Your task to perform on an android device: turn off notifications in google photos Image 0: 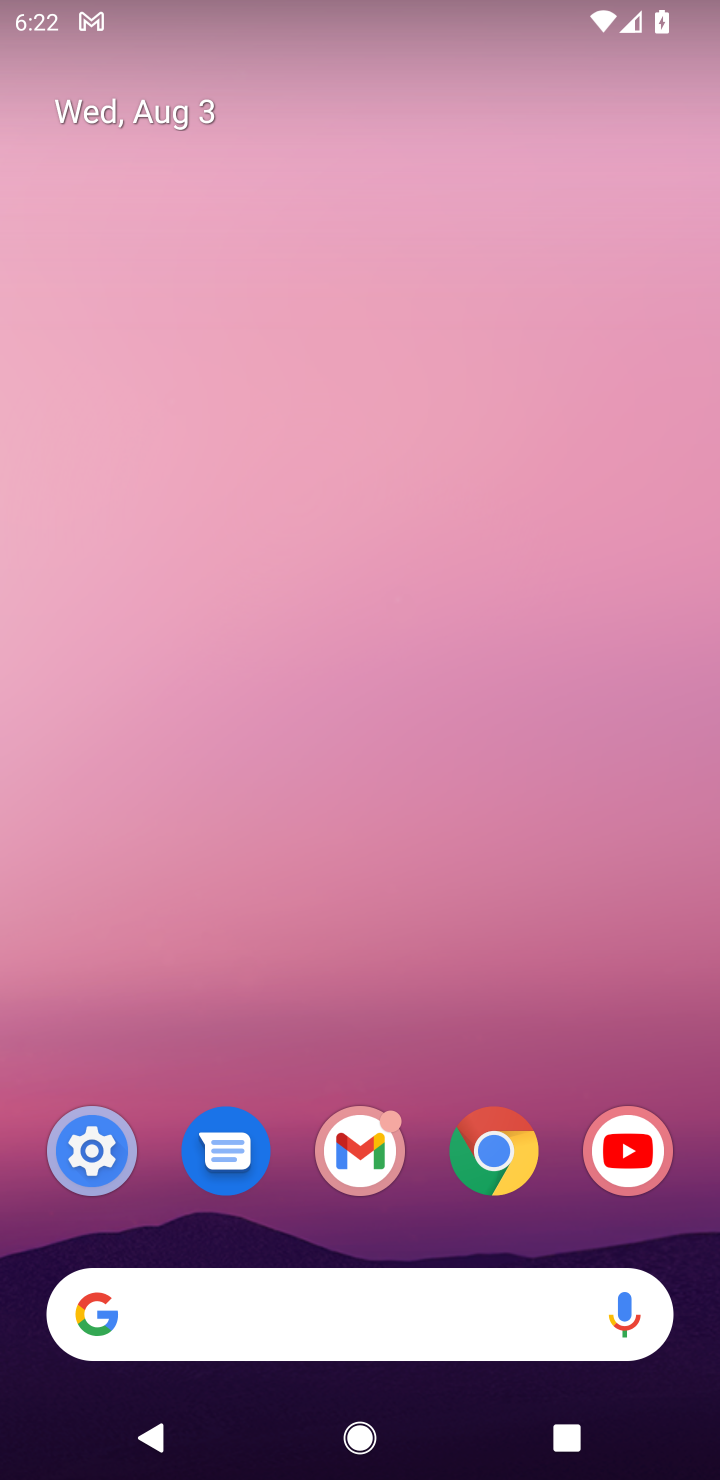
Step 0: drag from (491, 1059) to (457, 472)
Your task to perform on an android device: turn off notifications in google photos Image 1: 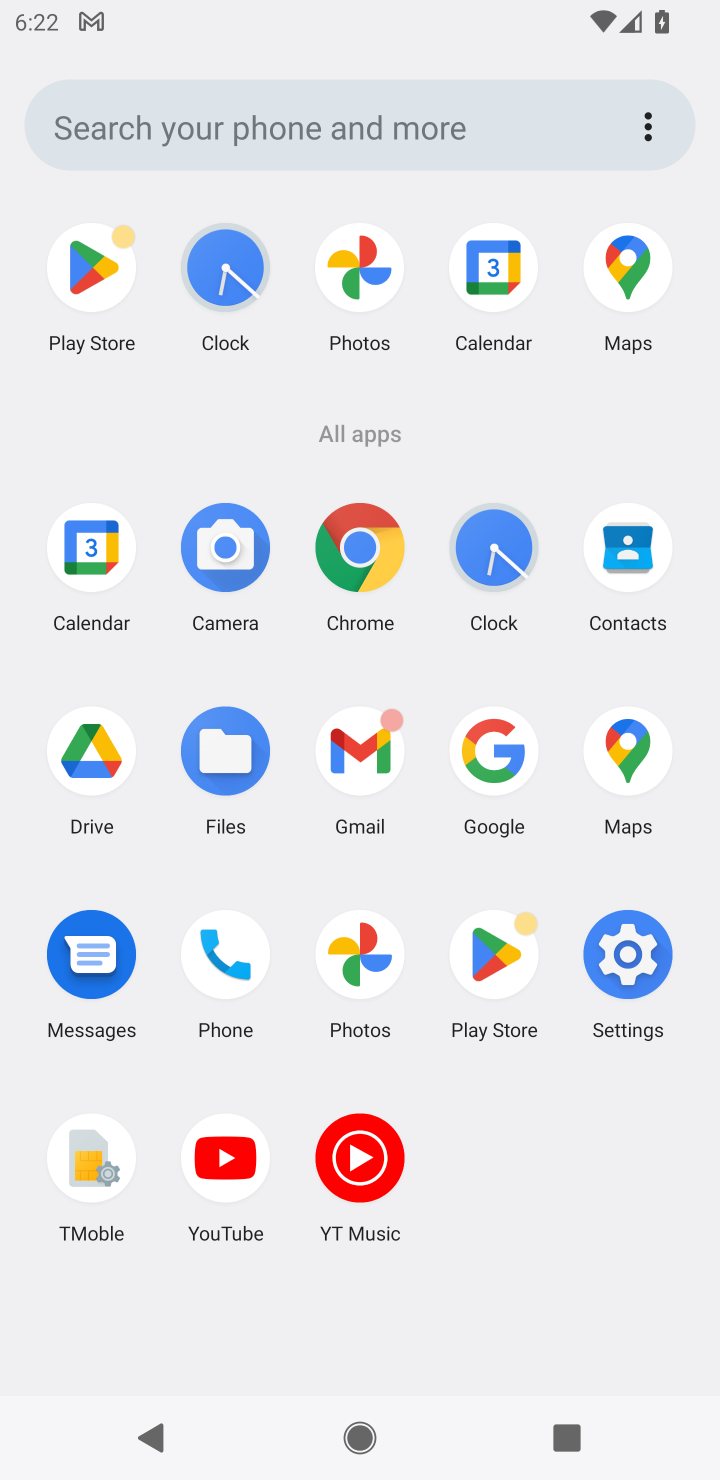
Step 1: click (342, 926)
Your task to perform on an android device: turn off notifications in google photos Image 2: 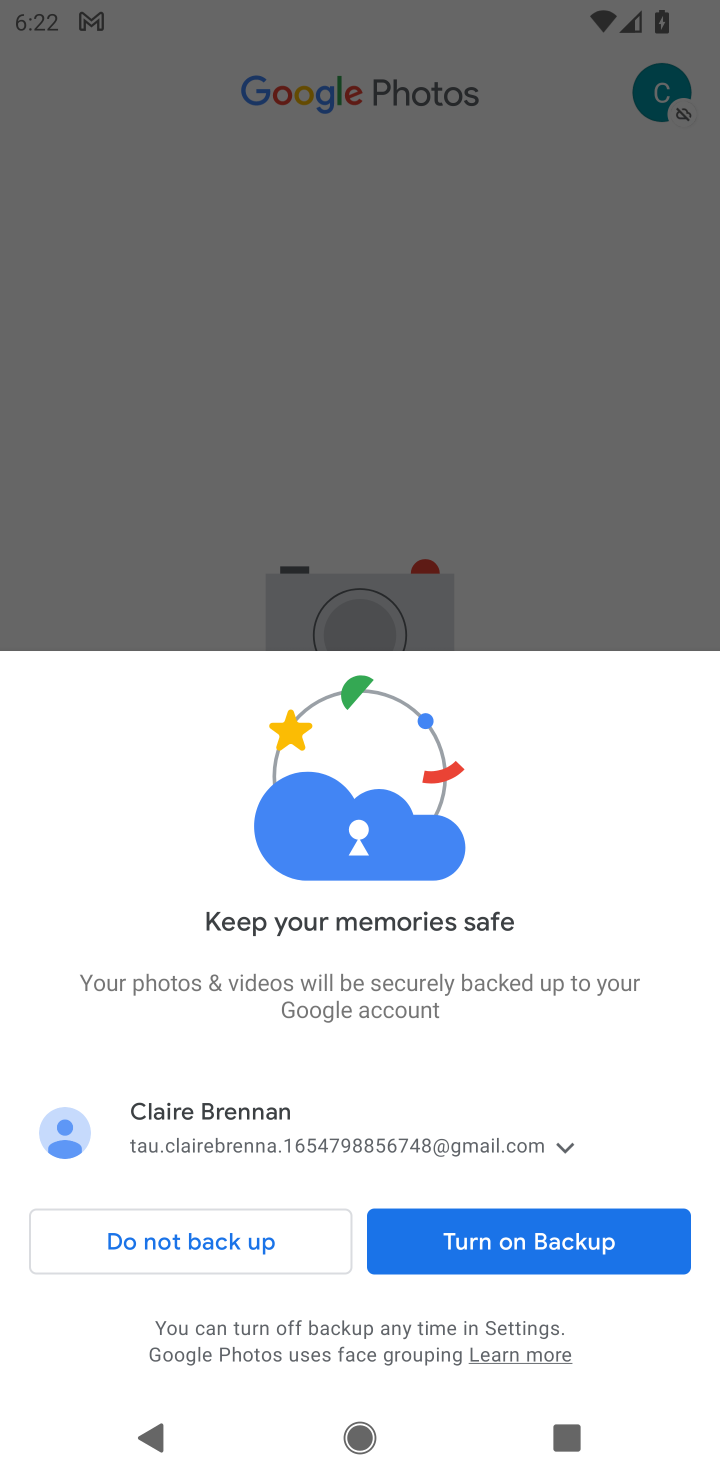
Step 2: click (450, 1238)
Your task to perform on an android device: turn off notifications in google photos Image 3: 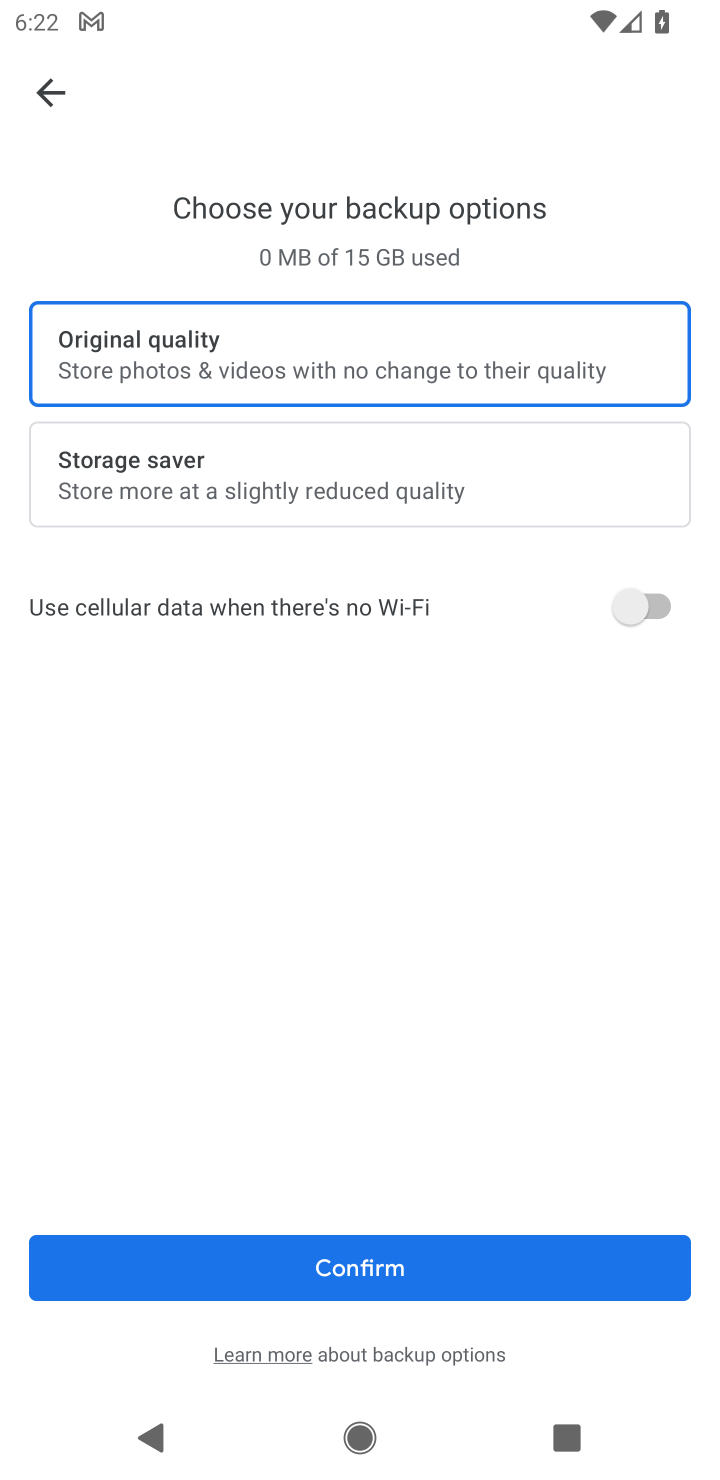
Step 3: click (427, 1261)
Your task to perform on an android device: turn off notifications in google photos Image 4: 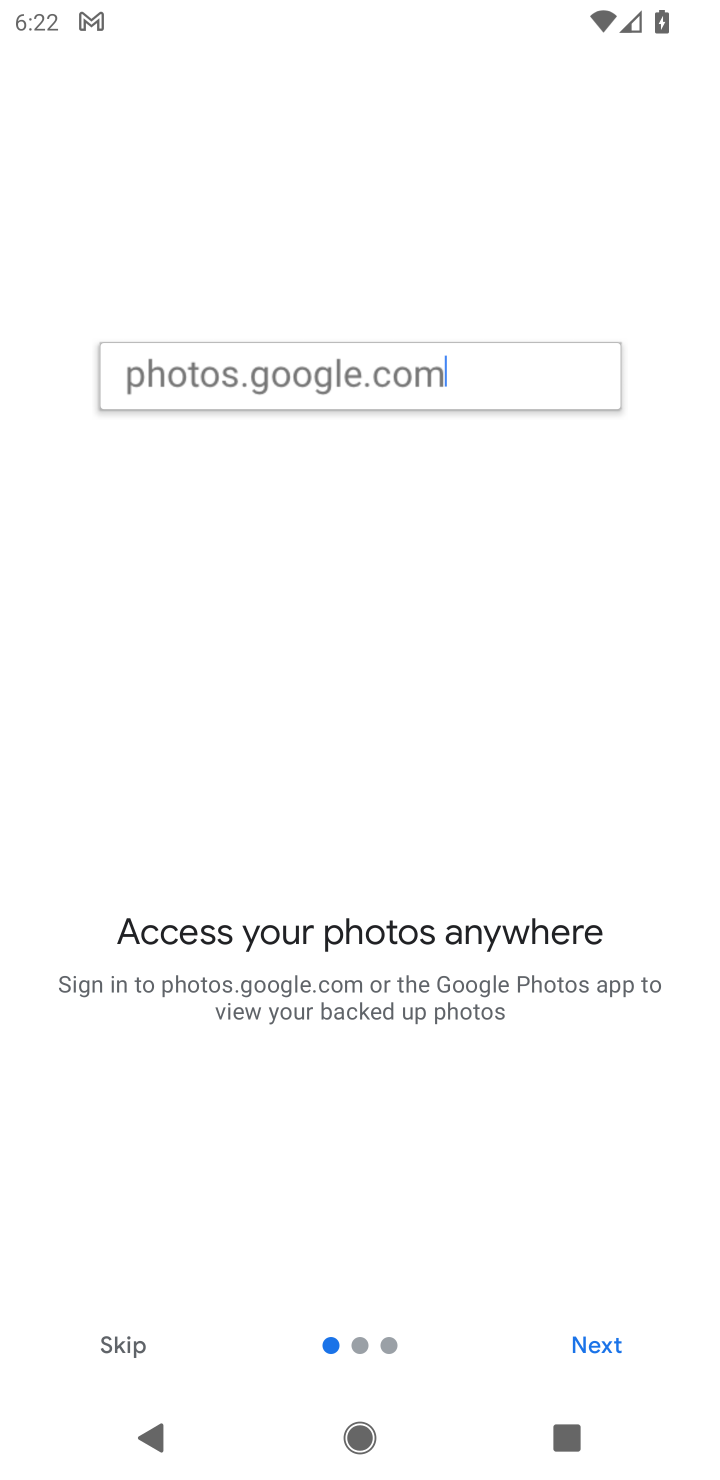
Step 4: press home button
Your task to perform on an android device: turn off notifications in google photos Image 5: 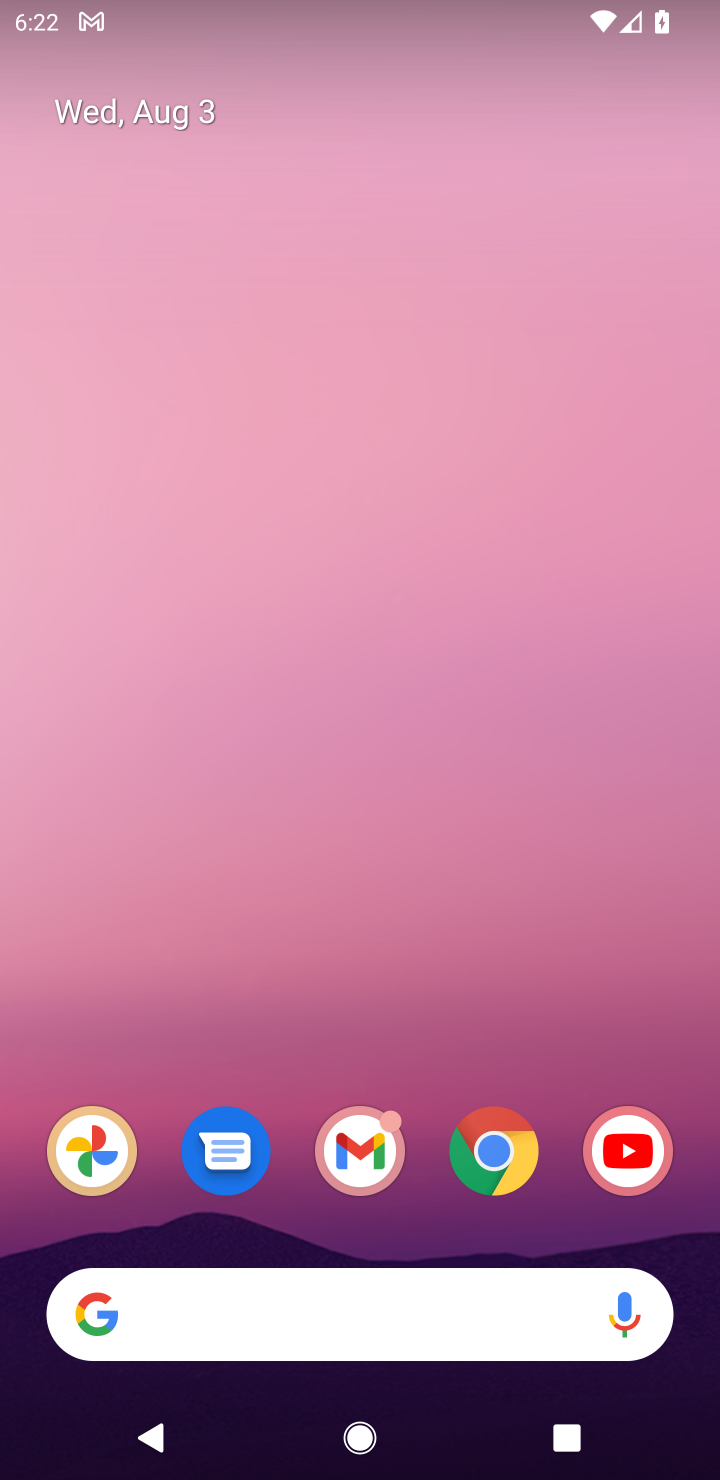
Step 5: click (120, 1162)
Your task to perform on an android device: turn off notifications in google photos Image 6: 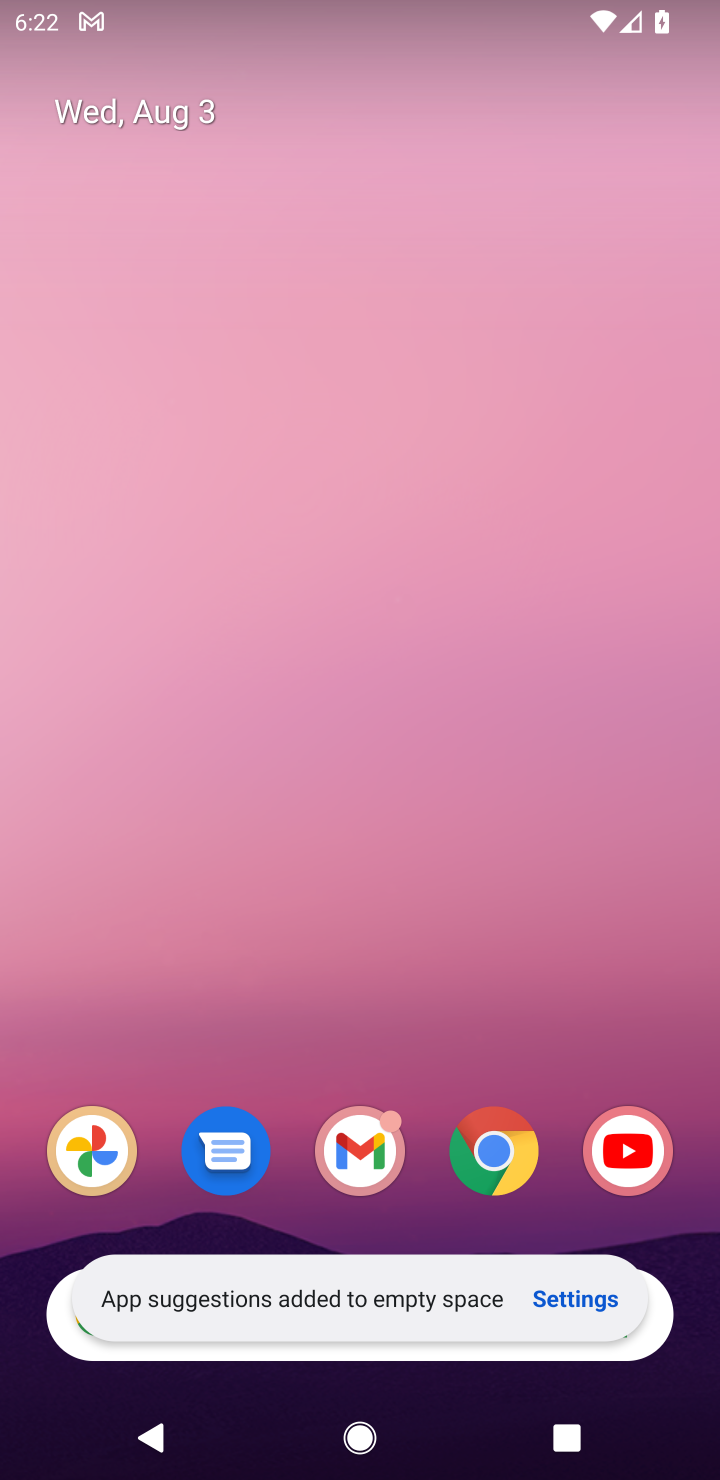
Step 6: click (80, 1140)
Your task to perform on an android device: turn off notifications in google photos Image 7: 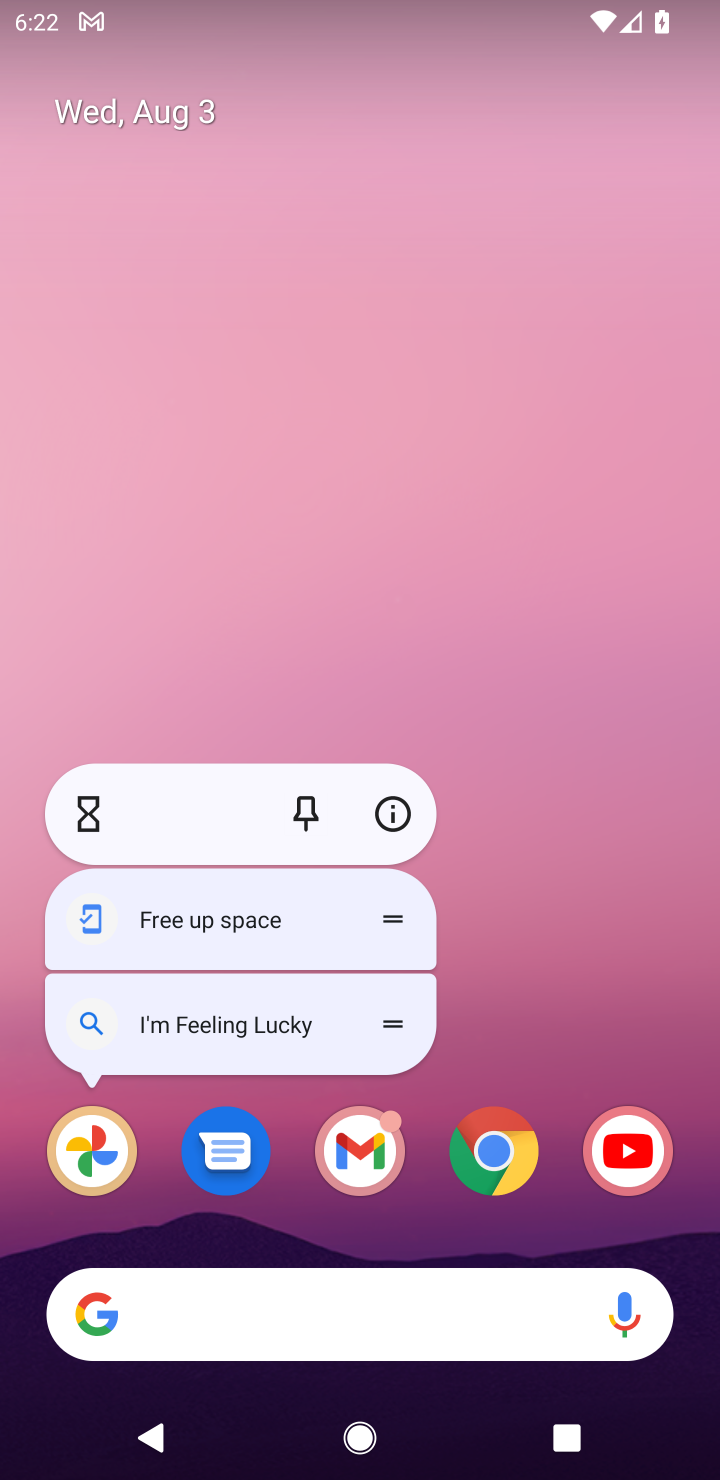
Step 7: click (397, 802)
Your task to perform on an android device: turn off notifications in google photos Image 8: 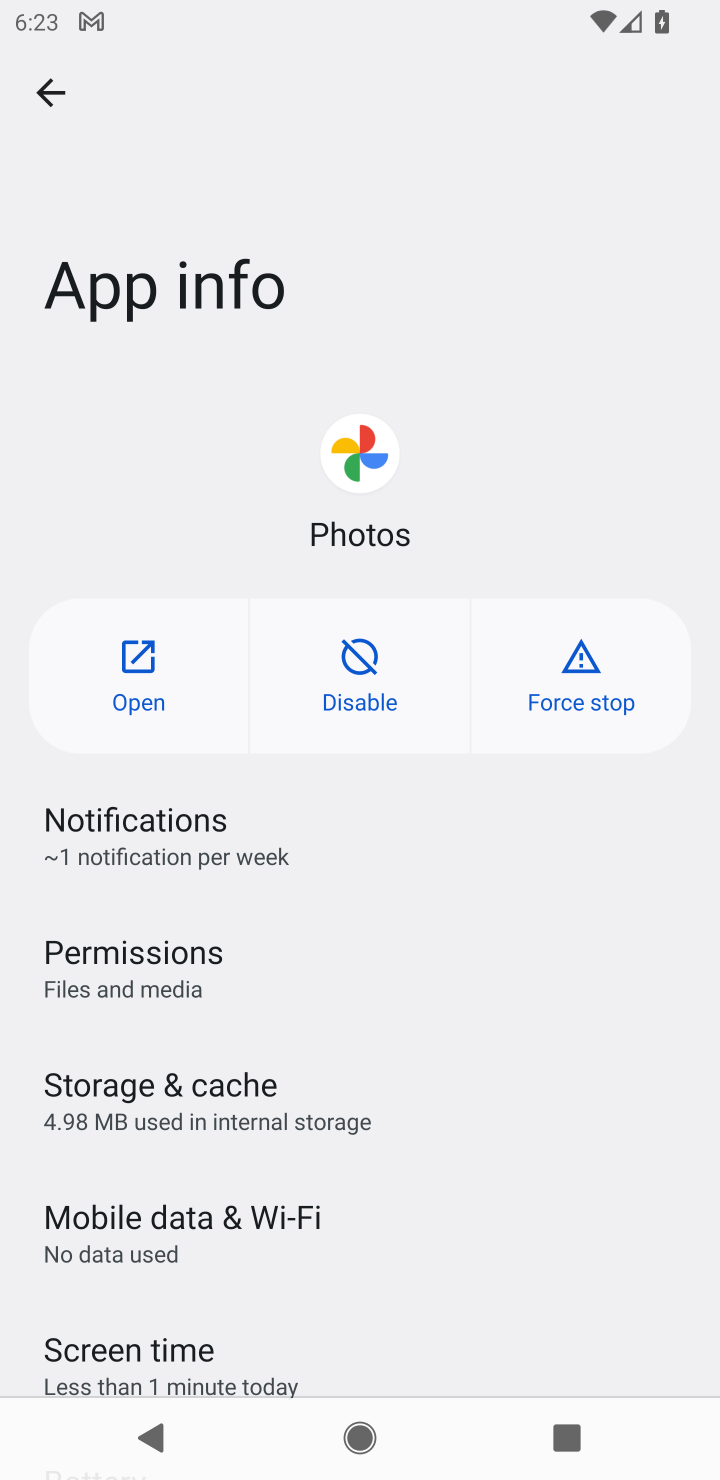
Step 8: click (221, 827)
Your task to perform on an android device: turn off notifications in google photos Image 9: 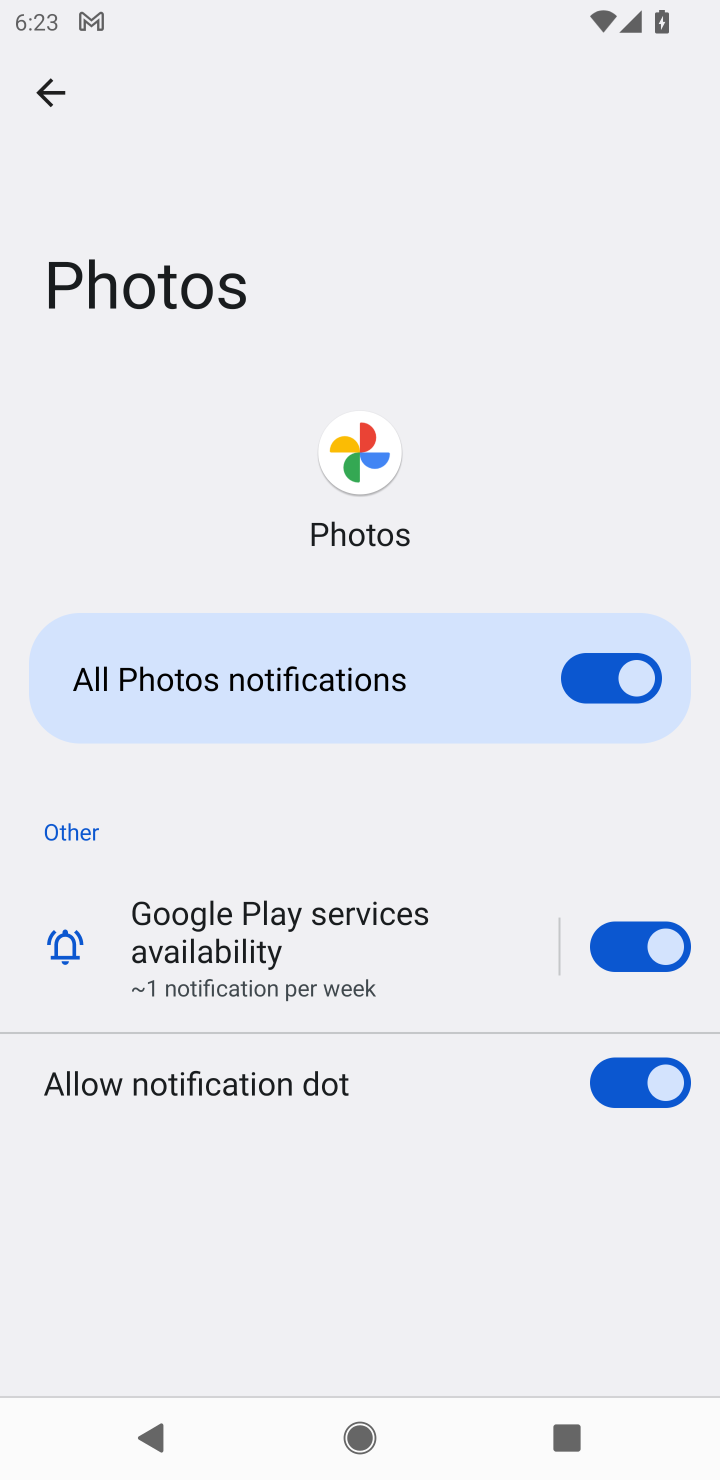
Step 9: click (617, 687)
Your task to perform on an android device: turn off notifications in google photos Image 10: 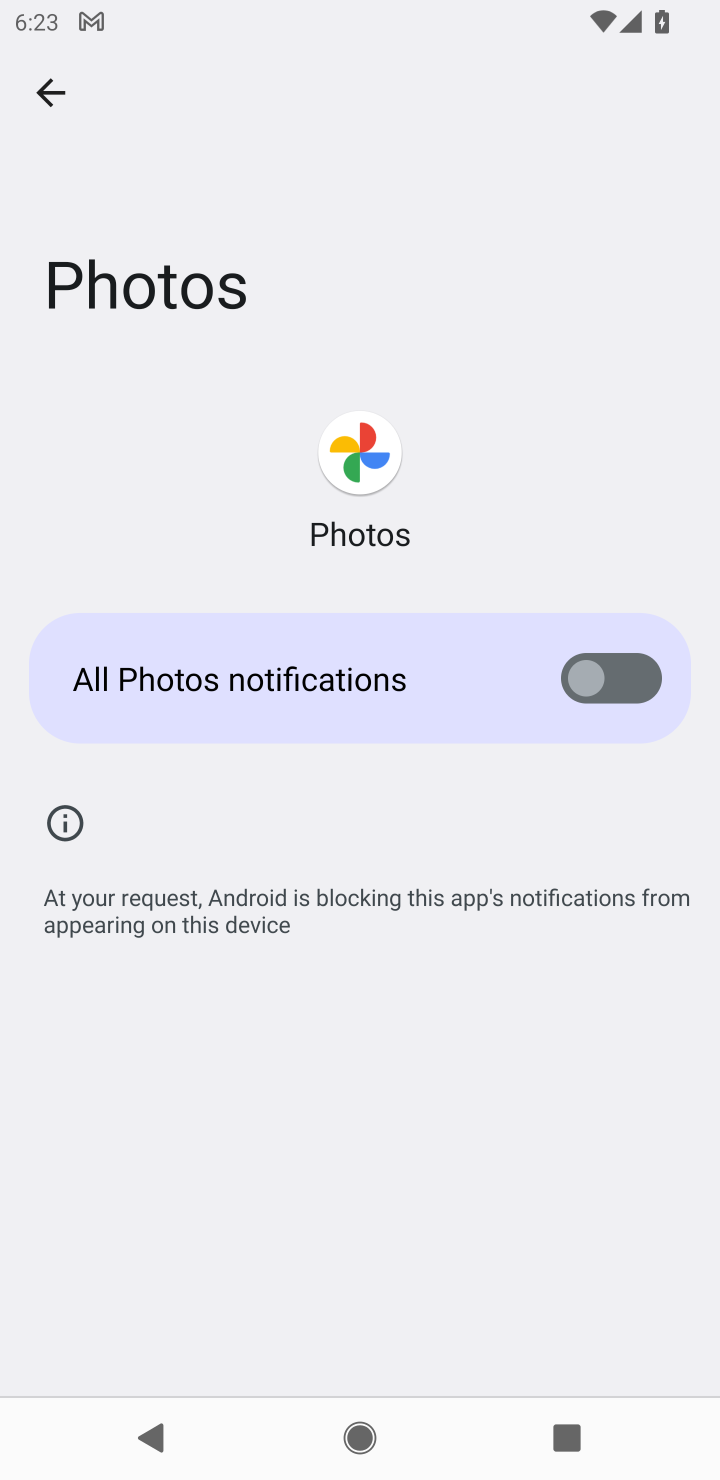
Step 10: task complete